Your task to perform on an android device: Clear the cart on bestbuy. Image 0: 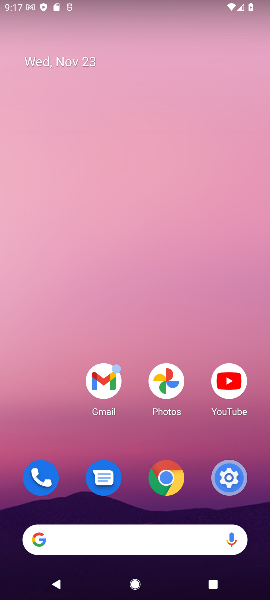
Step 0: click (106, 537)
Your task to perform on an android device: Clear the cart on bestbuy. Image 1: 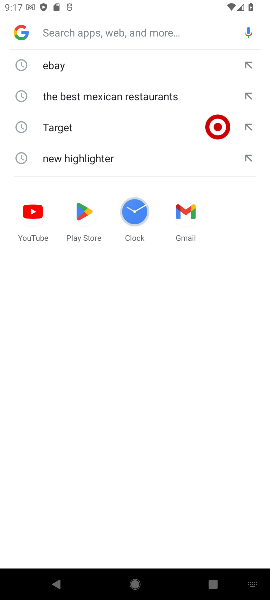
Step 1: type "bestbuy"
Your task to perform on an android device: Clear the cart on bestbuy. Image 2: 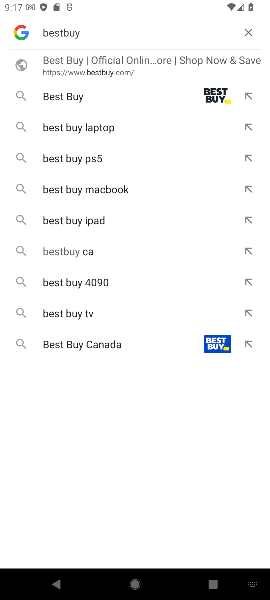
Step 2: click (75, 56)
Your task to perform on an android device: Clear the cart on bestbuy. Image 3: 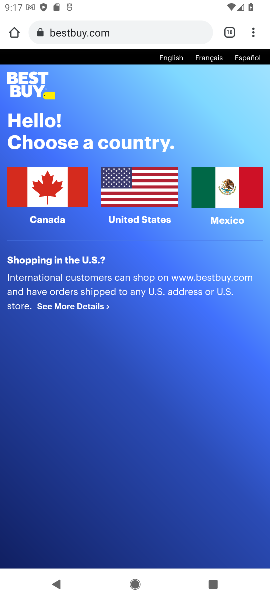
Step 3: click (43, 211)
Your task to perform on an android device: Clear the cart on bestbuy. Image 4: 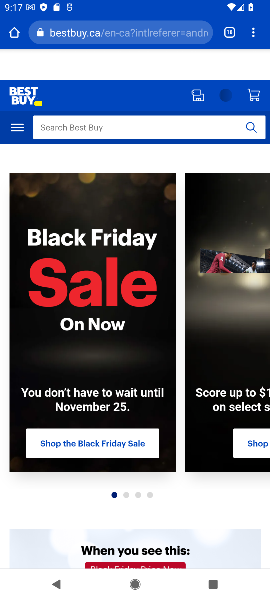
Step 4: click (112, 129)
Your task to perform on an android device: Clear the cart on bestbuy. Image 5: 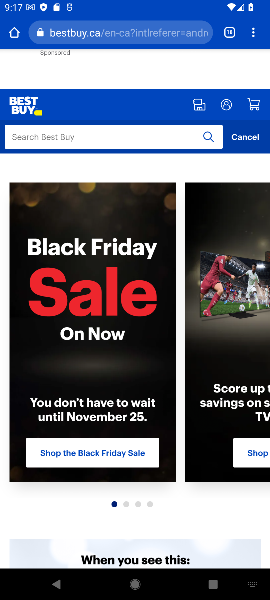
Step 5: task complete